Your task to perform on an android device: Search for seafood restaurants on Google Maps Image 0: 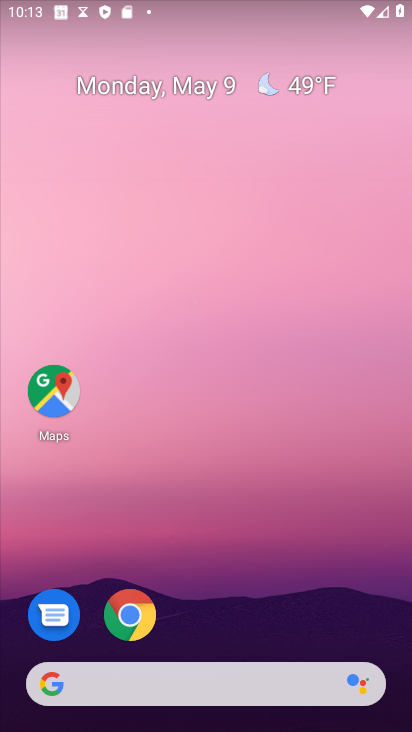
Step 0: click (31, 394)
Your task to perform on an android device: Search for seafood restaurants on Google Maps Image 1: 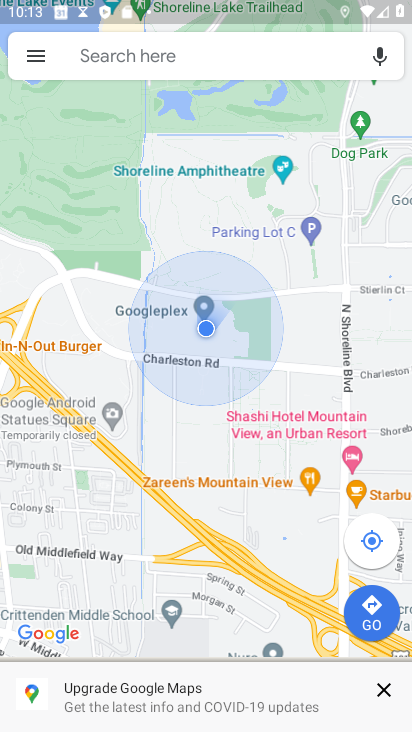
Step 1: click (174, 54)
Your task to perform on an android device: Search for seafood restaurants on Google Maps Image 2: 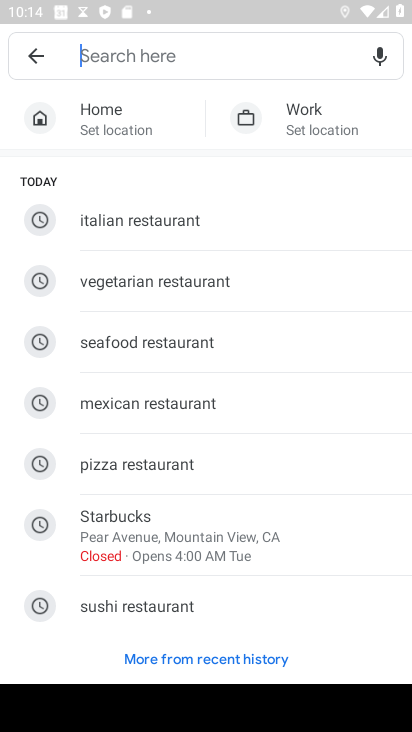
Step 2: click (221, 52)
Your task to perform on an android device: Search for seafood restaurants on Google Maps Image 3: 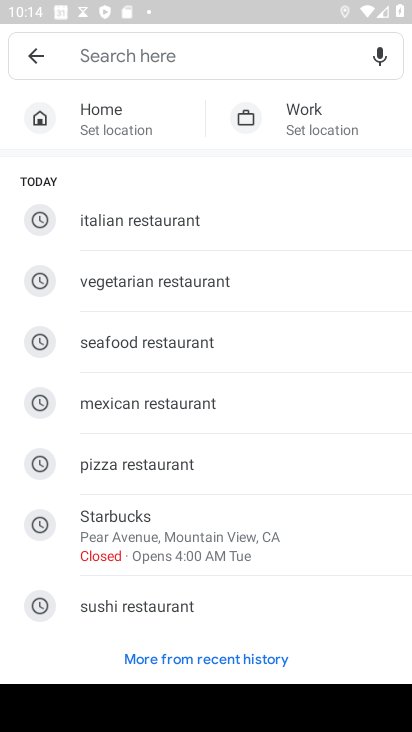
Step 3: type "seafood restaurant"
Your task to perform on an android device: Search for seafood restaurants on Google Maps Image 4: 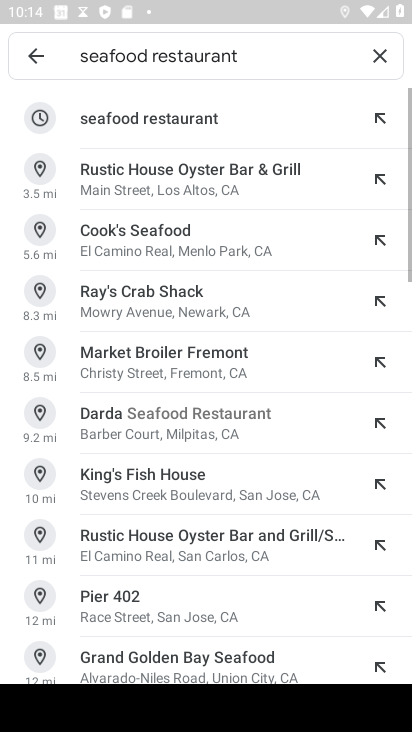
Step 4: click (120, 121)
Your task to perform on an android device: Search for seafood restaurants on Google Maps Image 5: 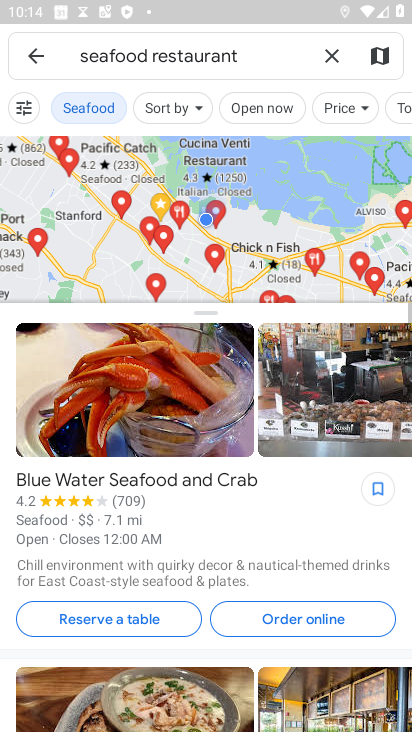
Step 5: task complete